Your task to perform on an android device: Show me popular games on the Play Store Image 0: 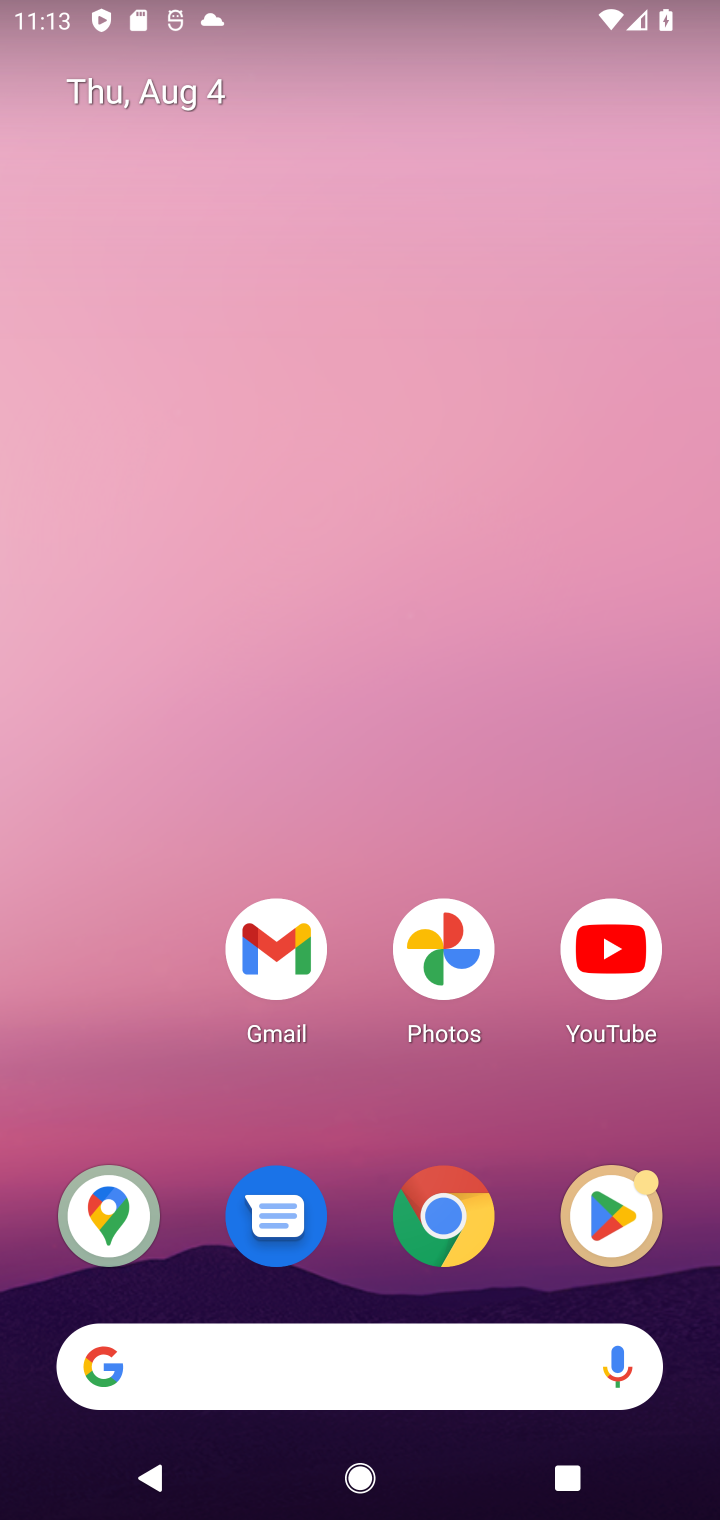
Step 0: drag from (251, 1374) to (291, 170)
Your task to perform on an android device: Show me popular games on the Play Store Image 1: 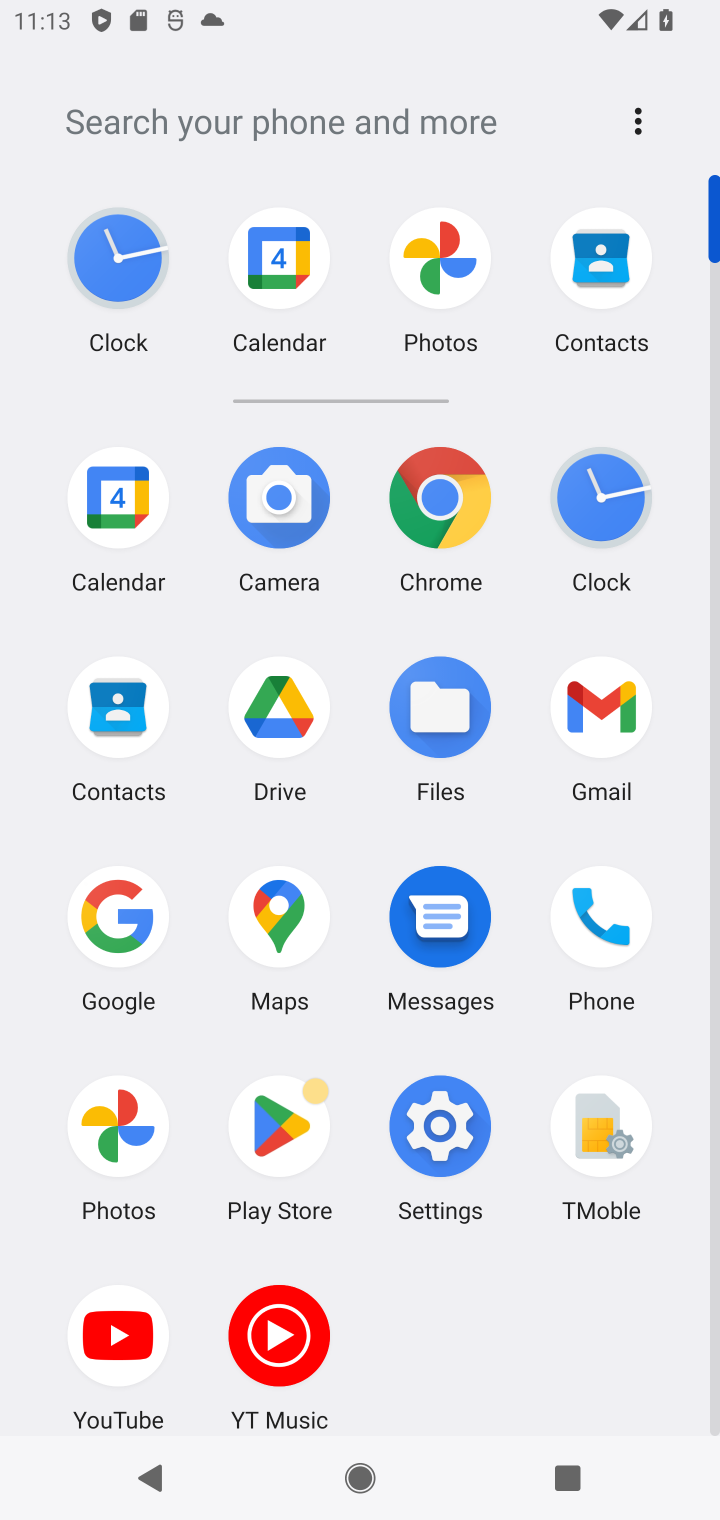
Step 1: click (287, 1125)
Your task to perform on an android device: Show me popular games on the Play Store Image 2: 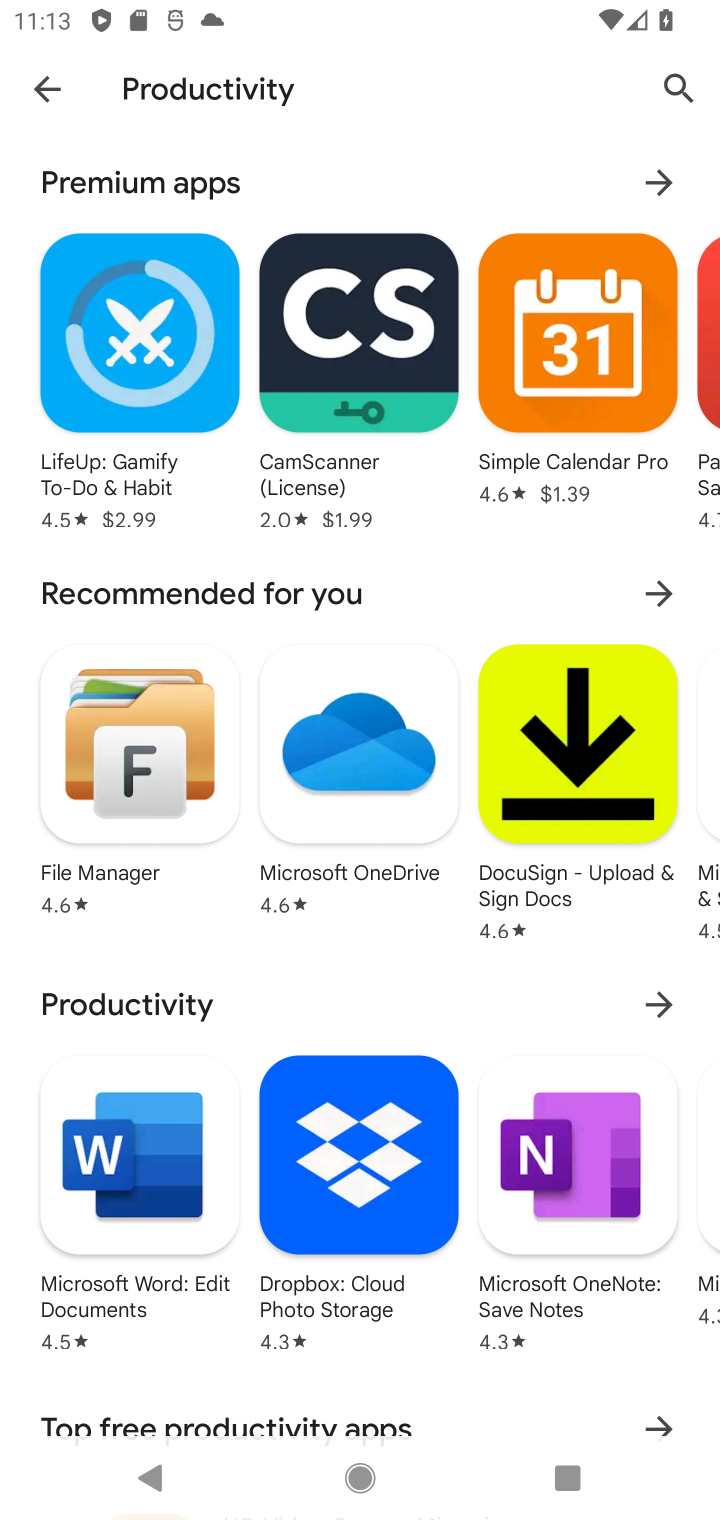
Step 2: click (681, 73)
Your task to perform on an android device: Show me popular games on the Play Store Image 3: 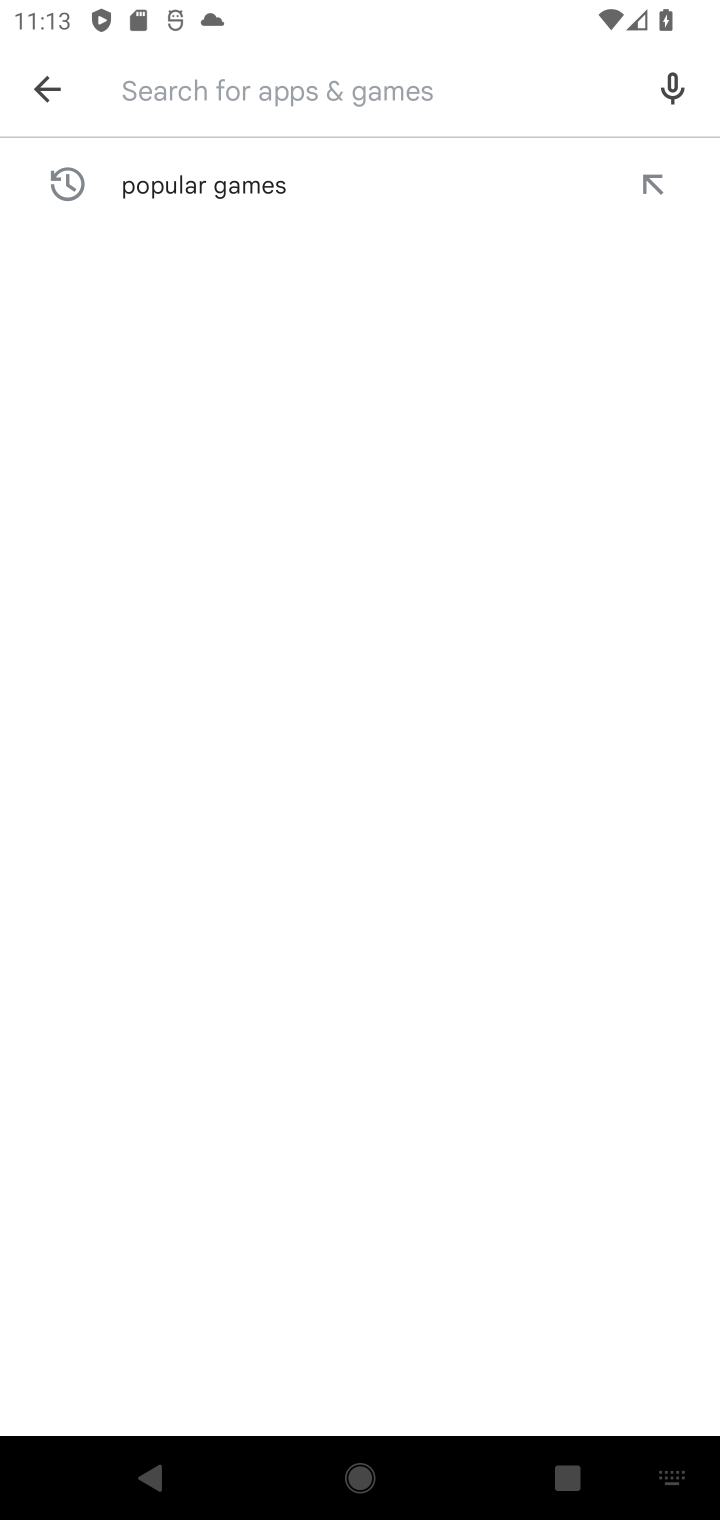
Step 3: click (273, 193)
Your task to perform on an android device: Show me popular games on the Play Store Image 4: 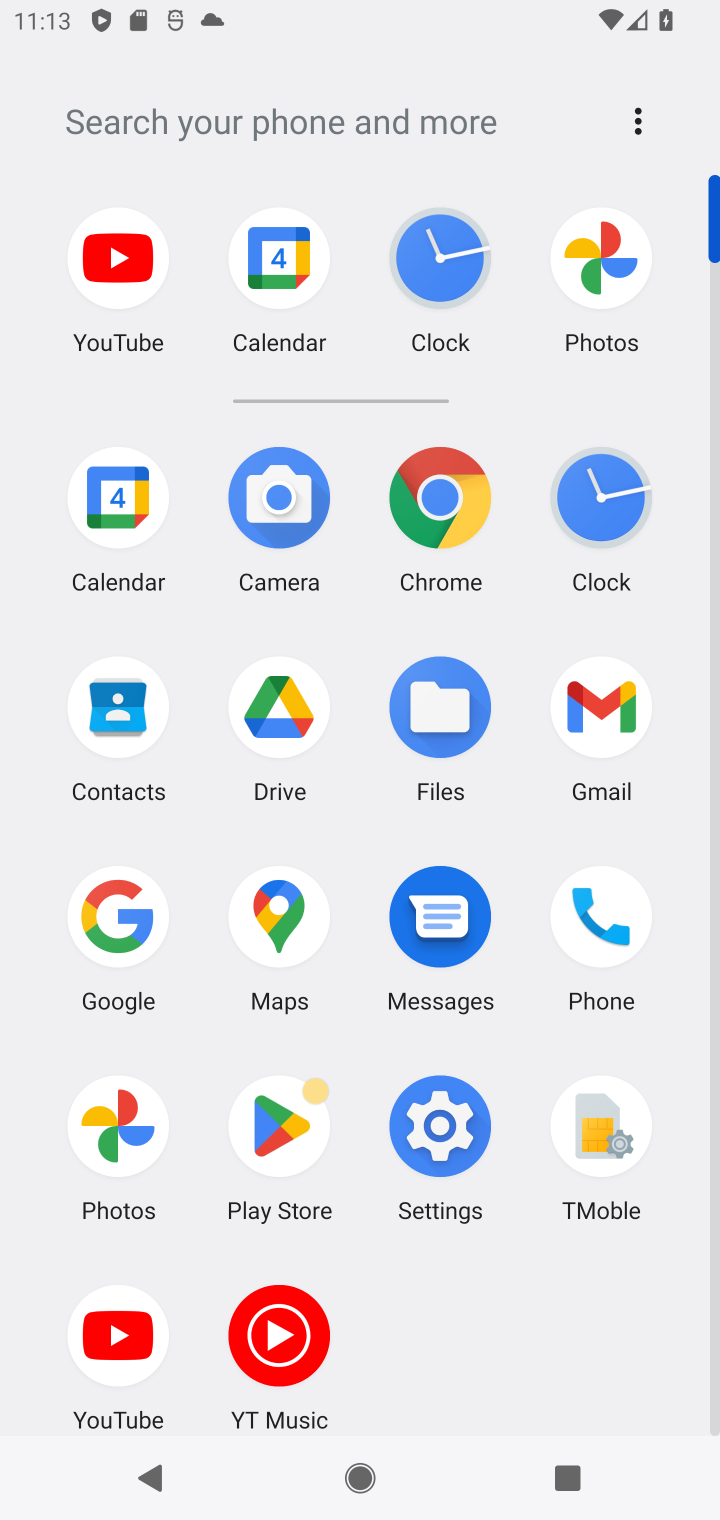
Step 4: click (289, 1137)
Your task to perform on an android device: Show me popular games on the Play Store Image 5: 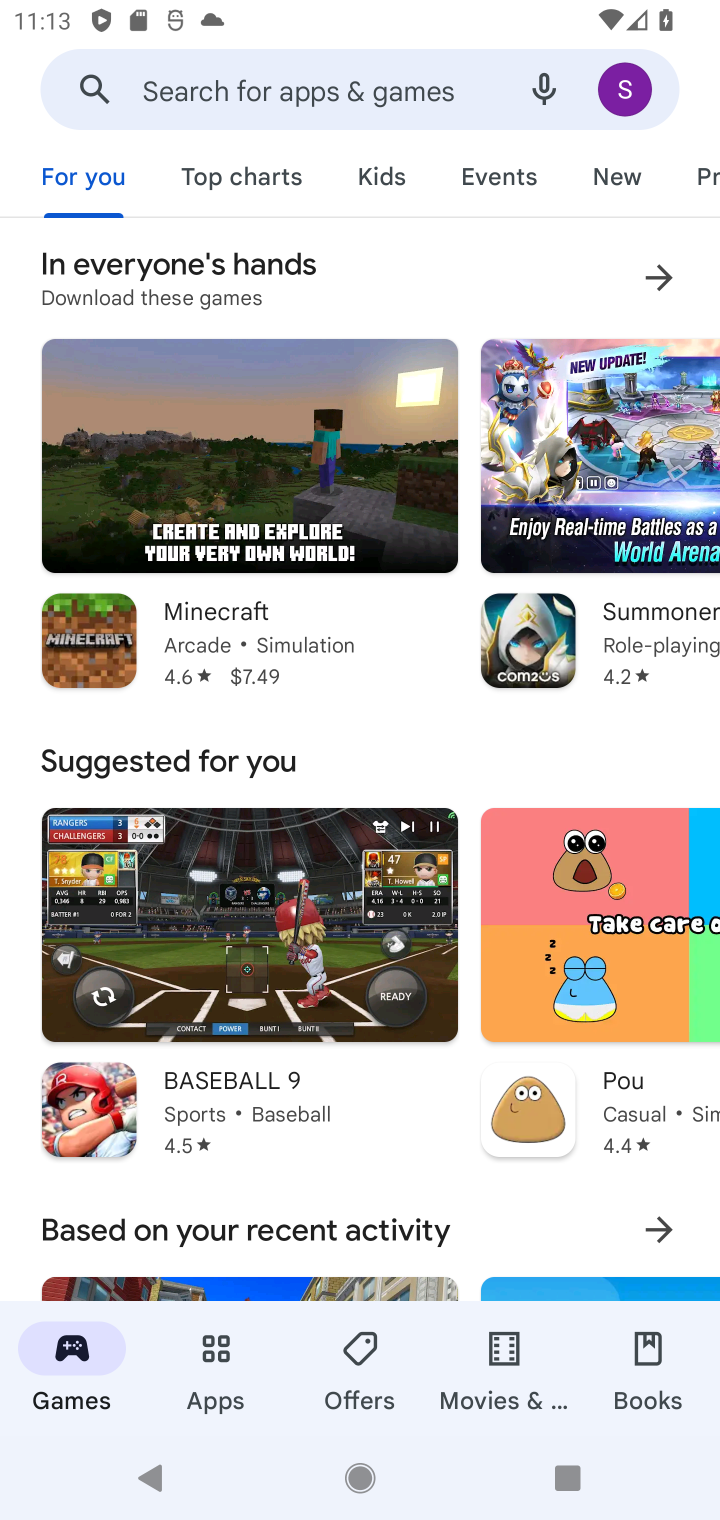
Step 5: click (411, 84)
Your task to perform on an android device: Show me popular games on the Play Store Image 6: 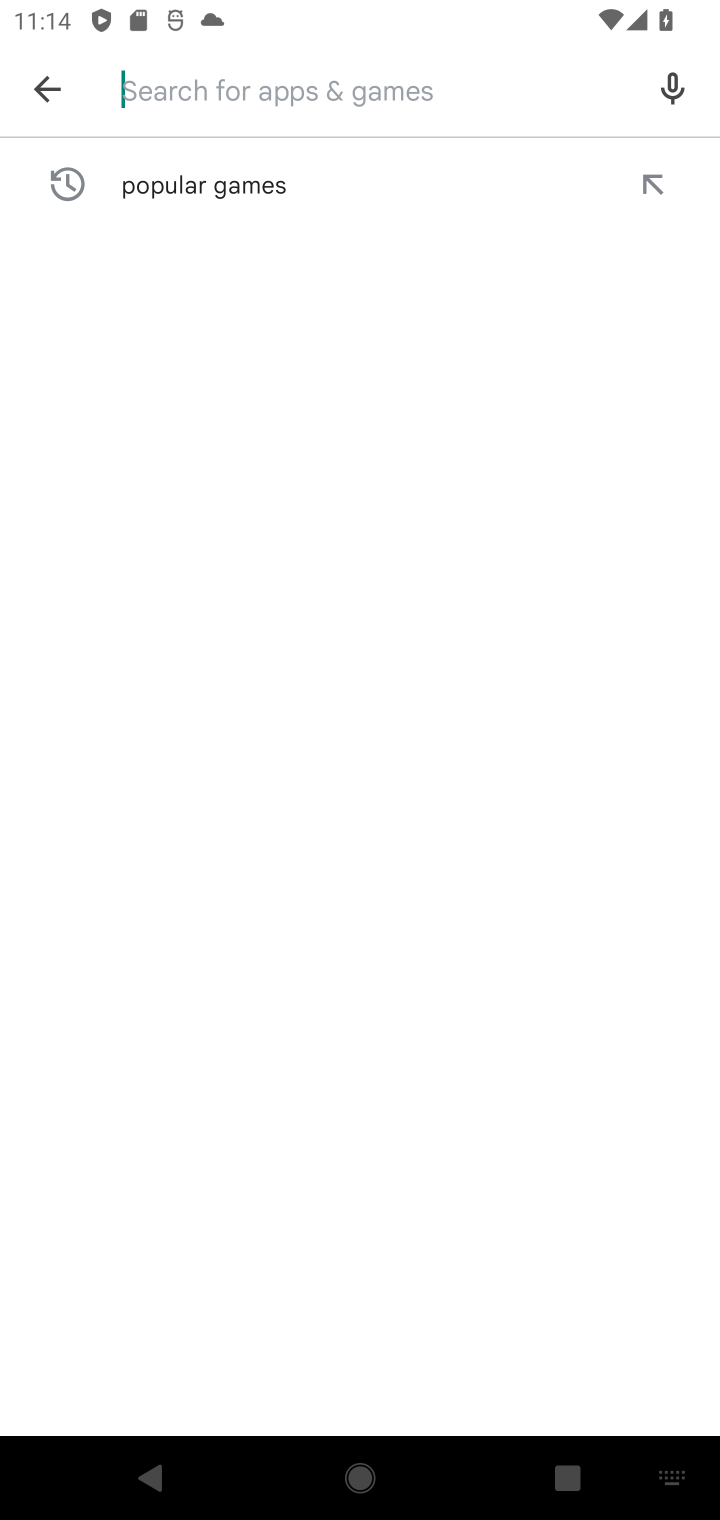
Step 6: click (221, 180)
Your task to perform on an android device: Show me popular games on the Play Store Image 7: 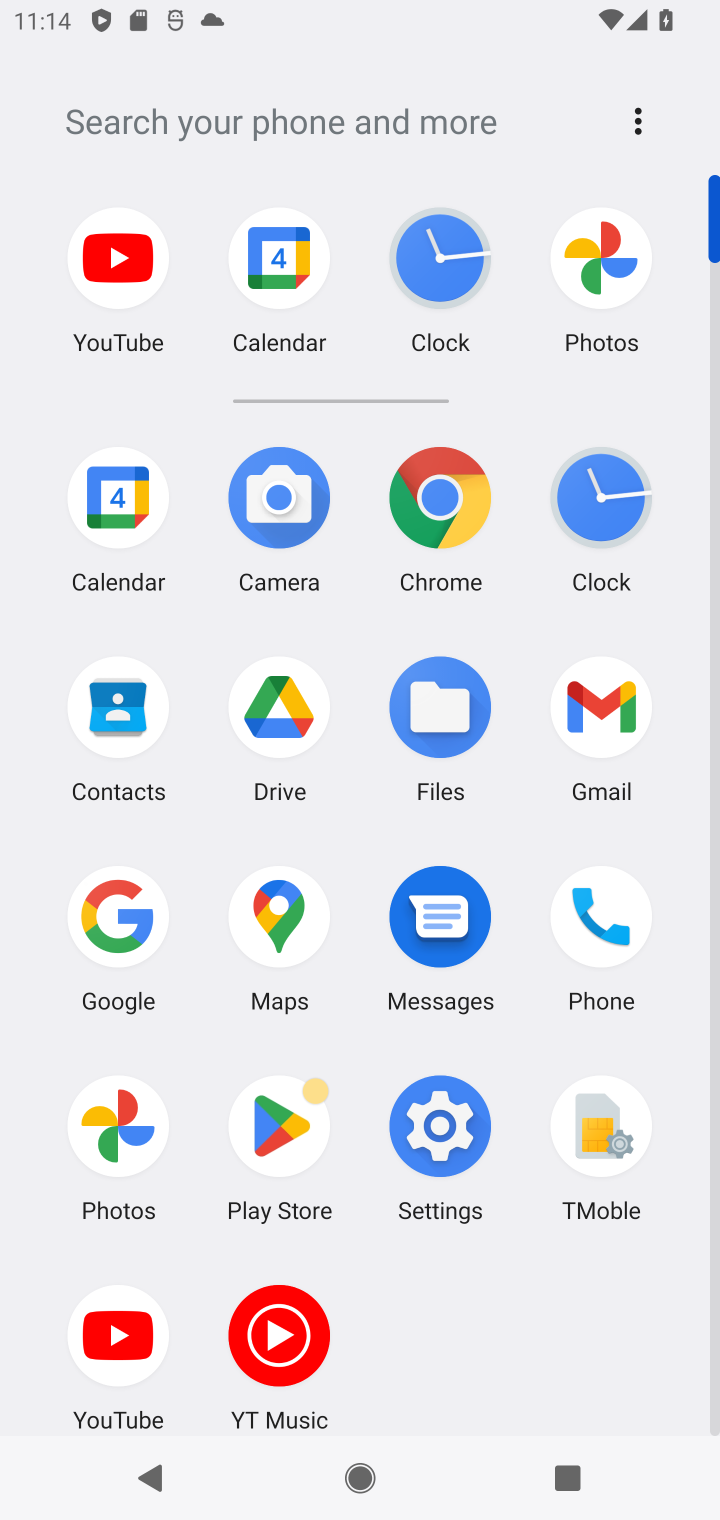
Step 7: task complete